Your task to perform on an android device: Go to Yahoo.com Image 0: 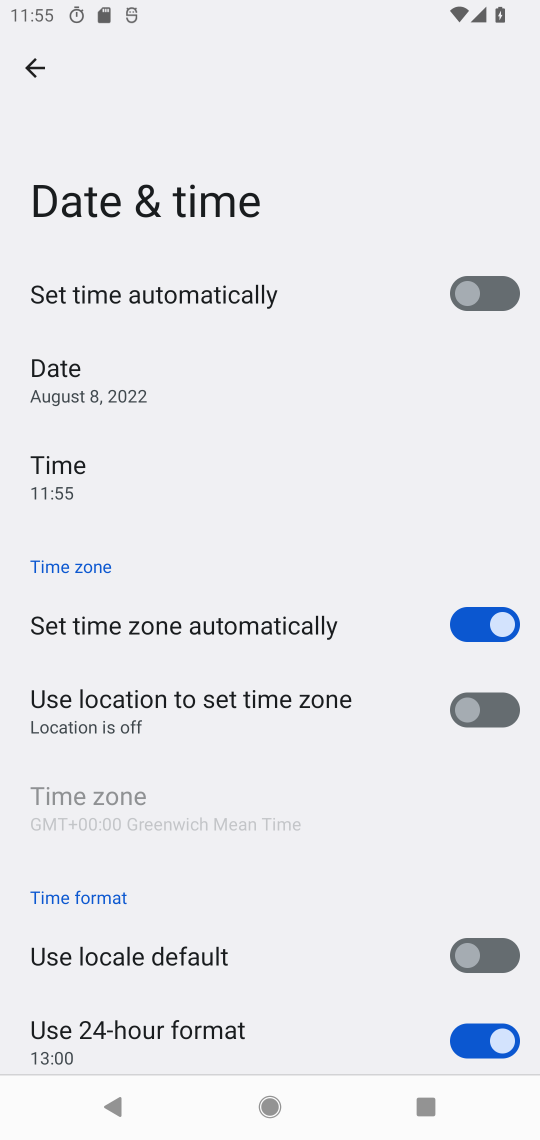
Step 0: press home button
Your task to perform on an android device: Go to Yahoo.com Image 1: 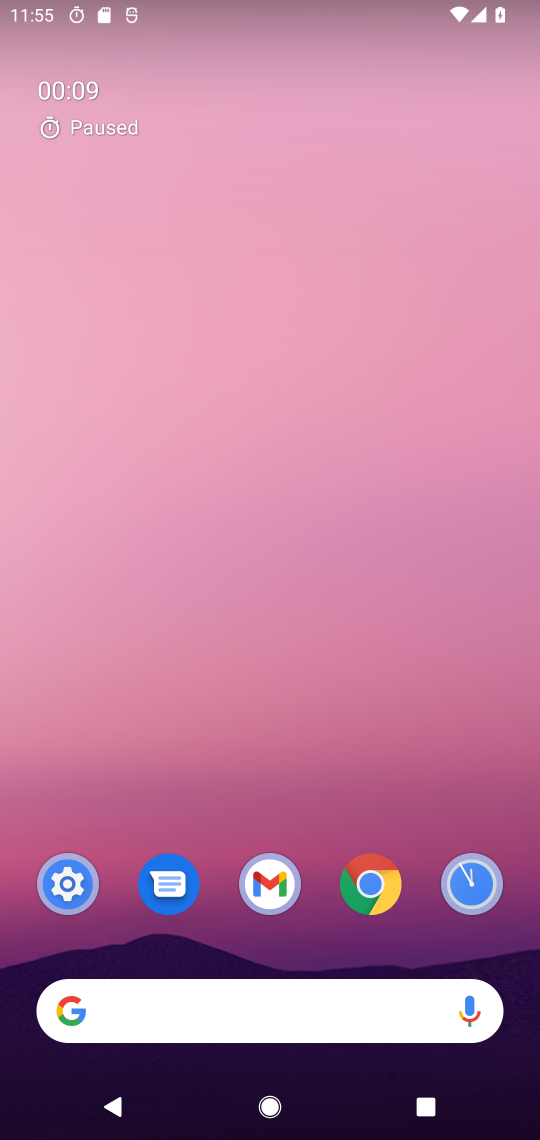
Step 1: click (363, 880)
Your task to perform on an android device: Go to Yahoo.com Image 2: 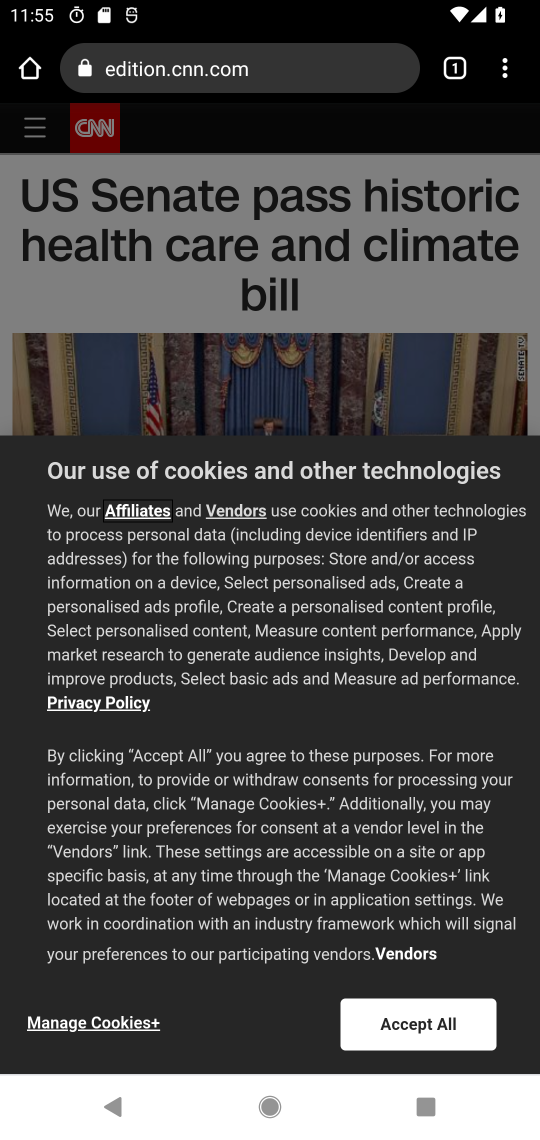
Step 2: click (197, 54)
Your task to perform on an android device: Go to Yahoo.com Image 3: 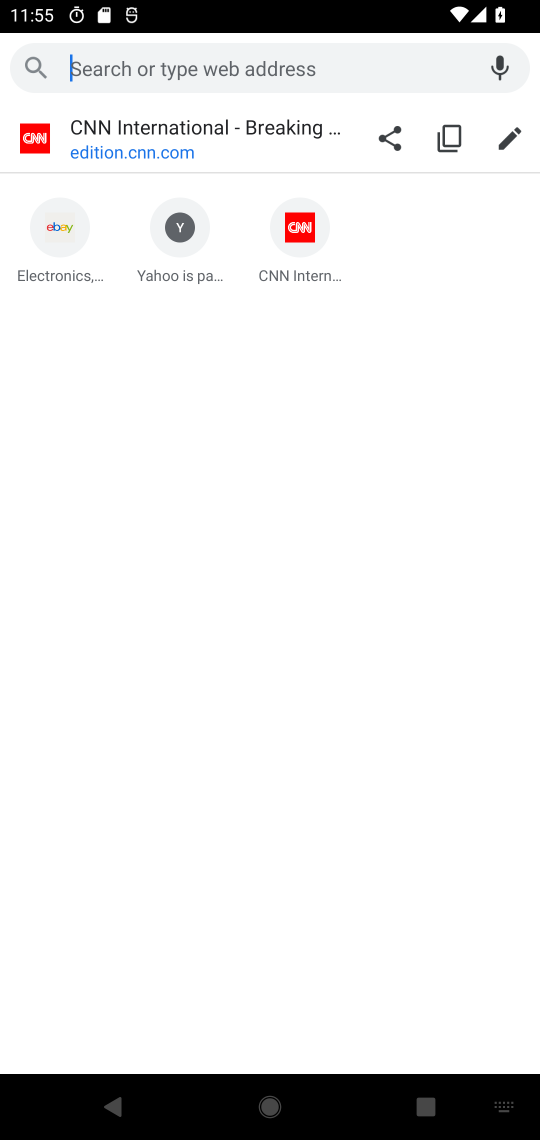
Step 3: type "www.yahoo.com"
Your task to perform on an android device: Go to Yahoo.com Image 4: 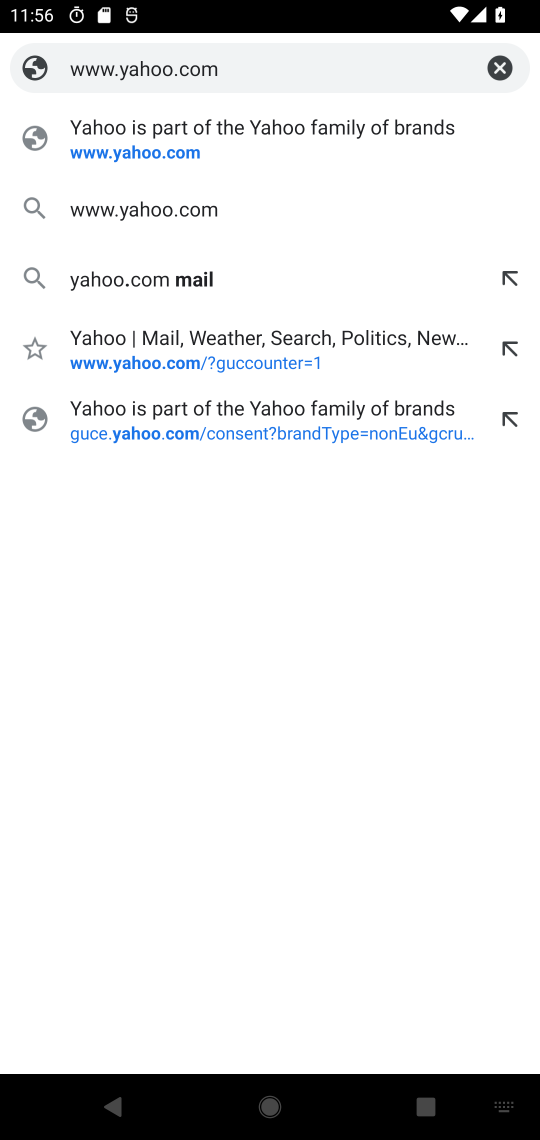
Step 4: click (140, 155)
Your task to perform on an android device: Go to Yahoo.com Image 5: 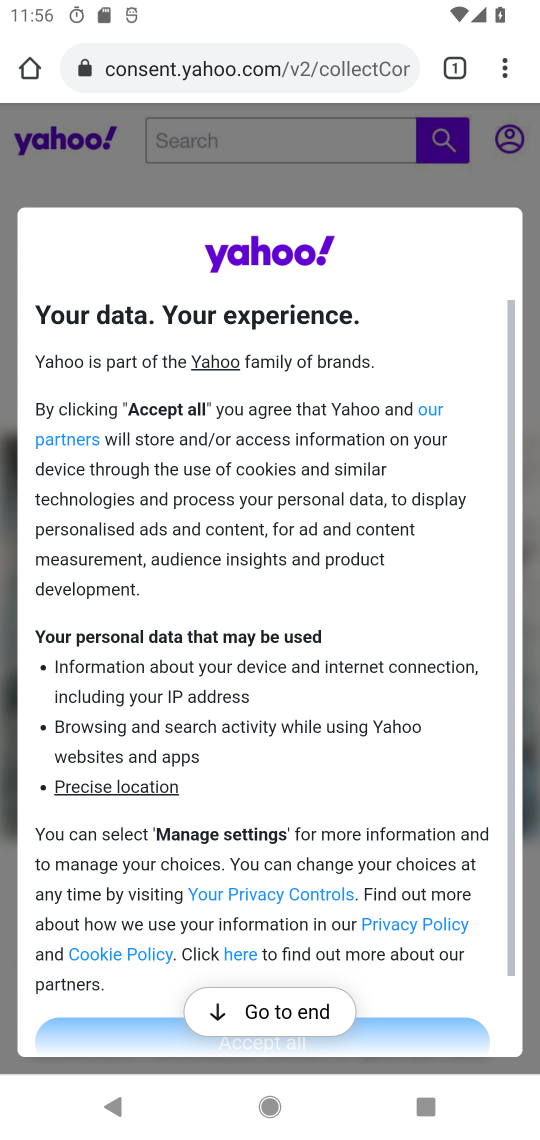
Step 5: task complete